Your task to perform on an android device: see sites visited before in the chrome app Image 0: 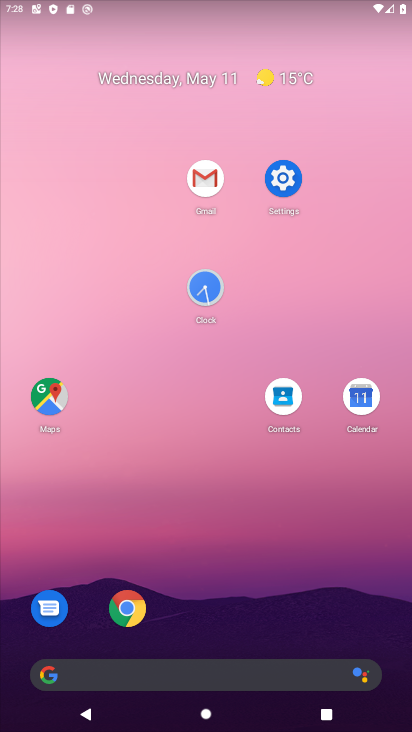
Step 0: click (276, 179)
Your task to perform on an android device: see sites visited before in the chrome app Image 1: 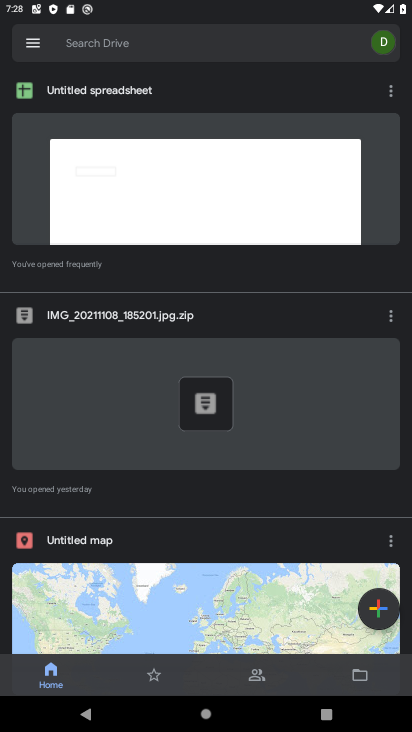
Step 1: press home button
Your task to perform on an android device: see sites visited before in the chrome app Image 2: 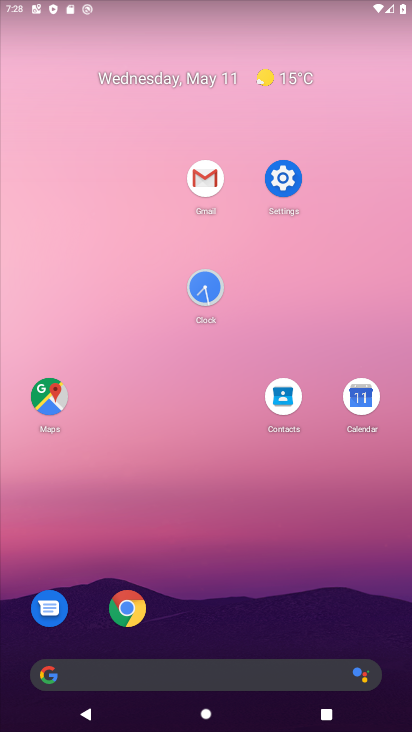
Step 2: click (277, 206)
Your task to perform on an android device: see sites visited before in the chrome app Image 3: 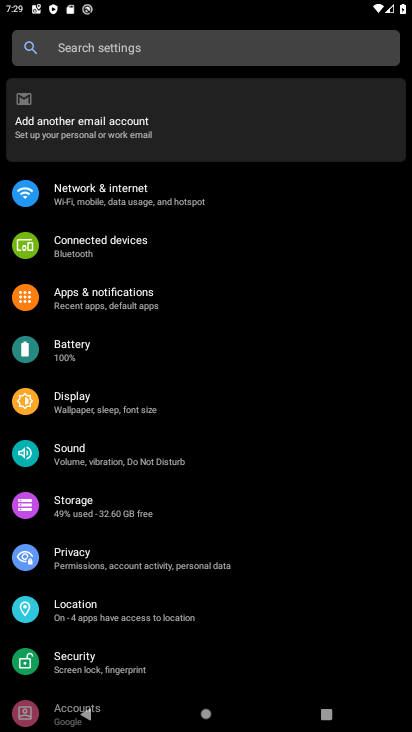
Step 3: press home button
Your task to perform on an android device: see sites visited before in the chrome app Image 4: 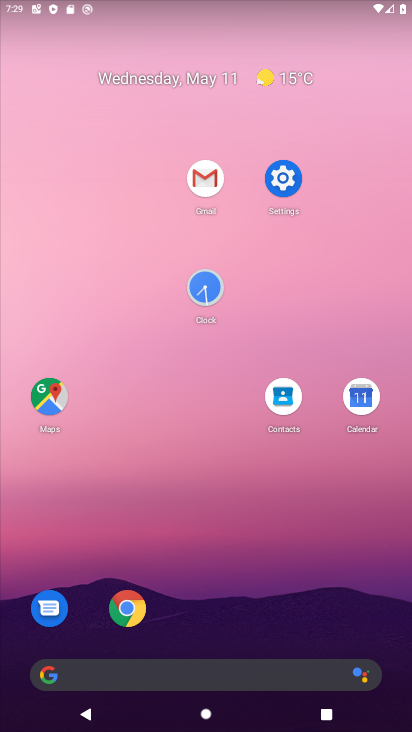
Step 4: click (131, 590)
Your task to perform on an android device: see sites visited before in the chrome app Image 5: 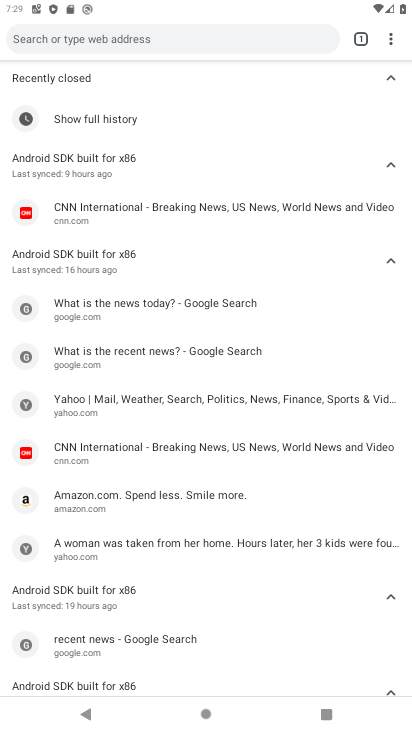
Step 5: task complete